Your task to perform on an android device: toggle improve location accuracy Image 0: 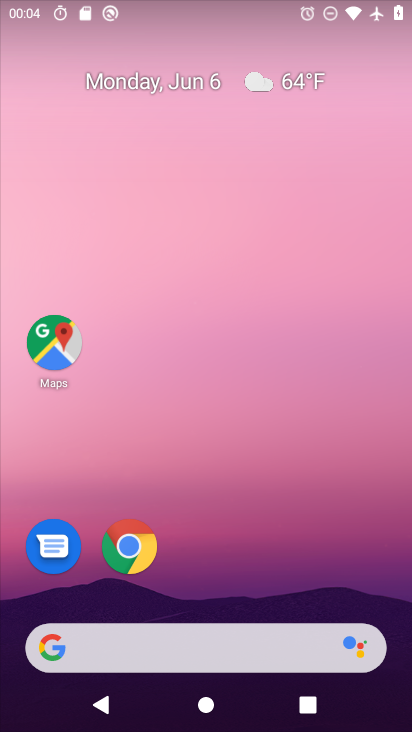
Step 0: drag from (159, 619) to (225, 350)
Your task to perform on an android device: toggle improve location accuracy Image 1: 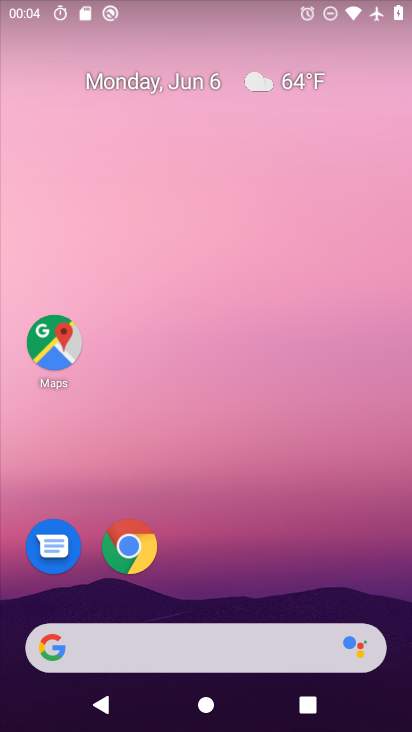
Step 1: drag from (216, 615) to (332, 30)
Your task to perform on an android device: toggle improve location accuracy Image 2: 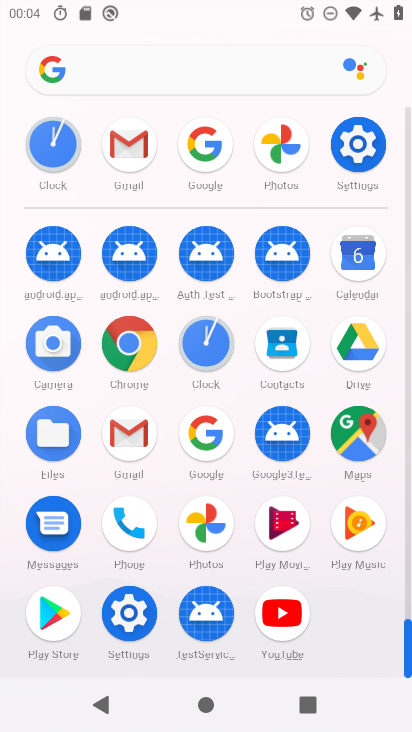
Step 2: click (351, 146)
Your task to perform on an android device: toggle improve location accuracy Image 3: 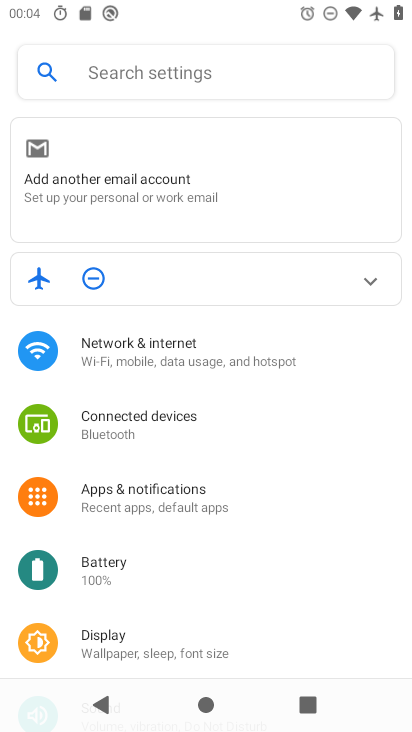
Step 3: drag from (178, 564) to (263, 136)
Your task to perform on an android device: toggle improve location accuracy Image 4: 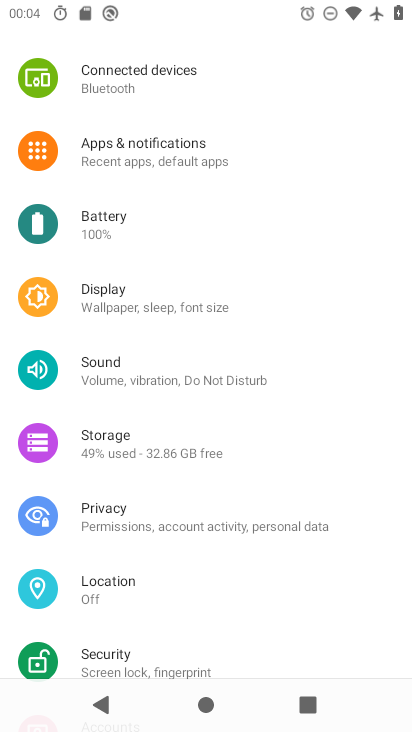
Step 4: drag from (211, 617) to (295, 152)
Your task to perform on an android device: toggle improve location accuracy Image 5: 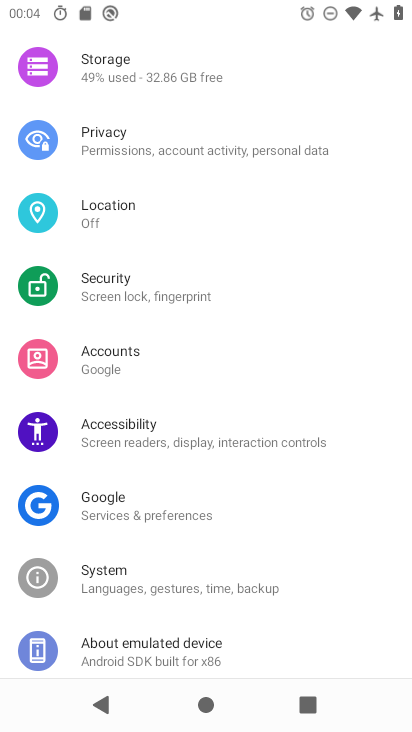
Step 5: drag from (175, 597) to (251, 242)
Your task to perform on an android device: toggle improve location accuracy Image 6: 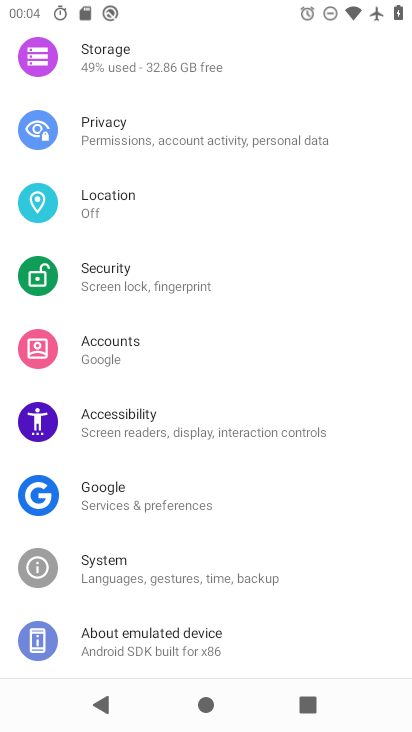
Step 6: click (152, 204)
Your task to perform on an android device: toggle improve location accuracy Image 7: 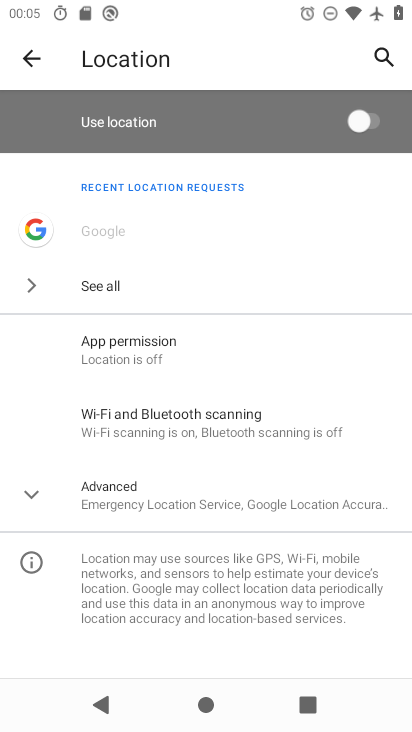
Step 7: click (156, 493)
Your task to perform on an android device: toggle improve location accuracy Image 8: 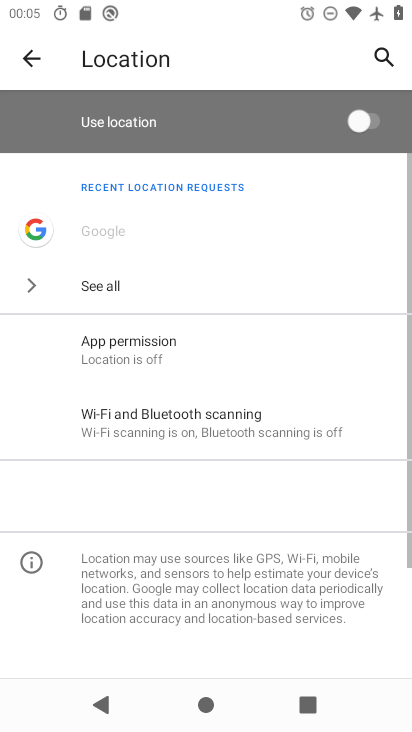
Step 8: drag from (156, 493) to (308, 147)
Your task to perform on an android device: toggle improve location accuracy Image 9: 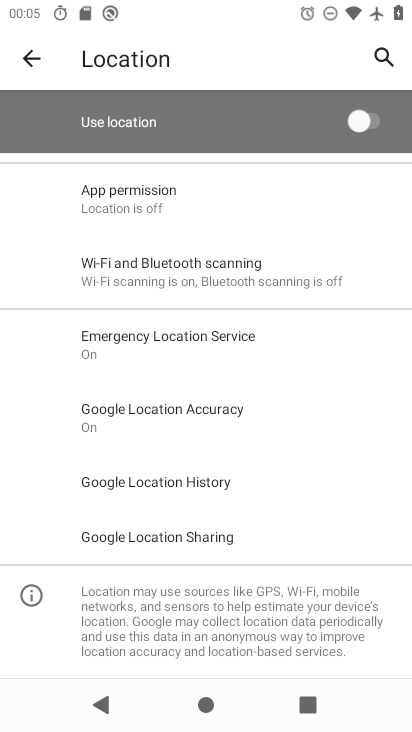
Step 9: click (192, 438)
Your task to perform on an android device: toggle improve location accuracy Image 10: 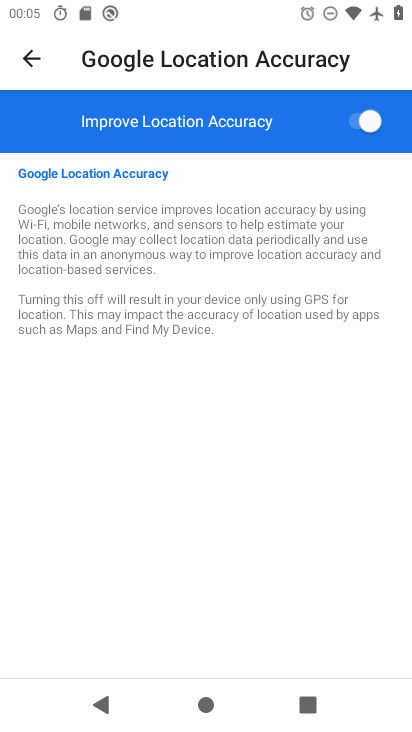
Step 10: click (344, 114)
Your task to perform on an android device: toggle improve location accuracy Image 11: 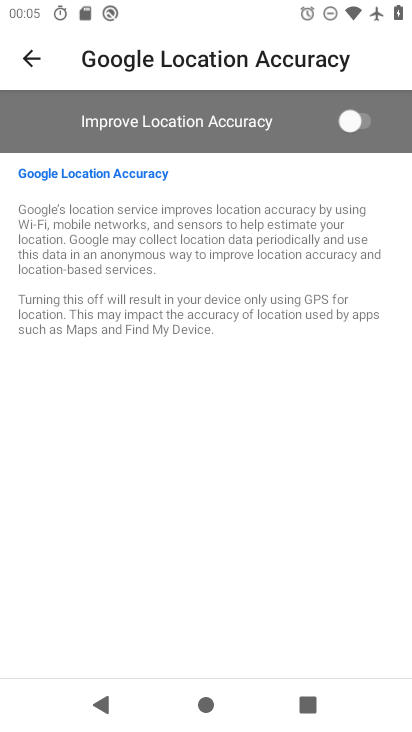
Step 11: task complete